Your task to perform on an android device: Search for the new Nike Air Jordan 33 on Nike.com Image 0: 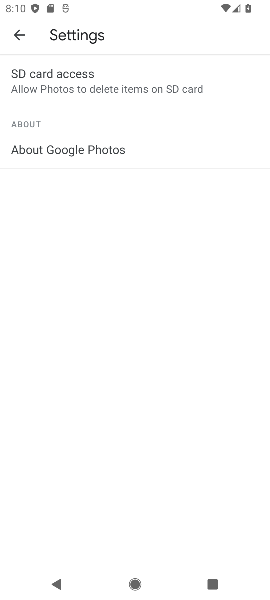
Step 0: press home button
Your task to perform on an android device: Search for the new Nike Air Jordan 33 on Nike.com Image 1: 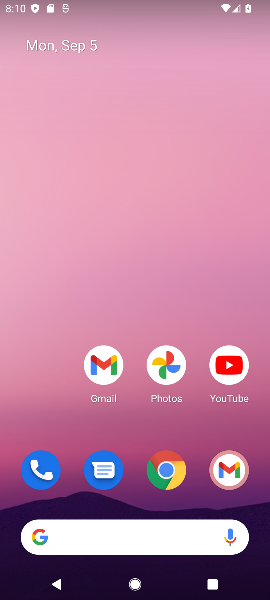
Step 1: click (155, 526)
Your task to perform on an android device: Search for the new Nike Air Jordan 33 on Nike.com Image 2: 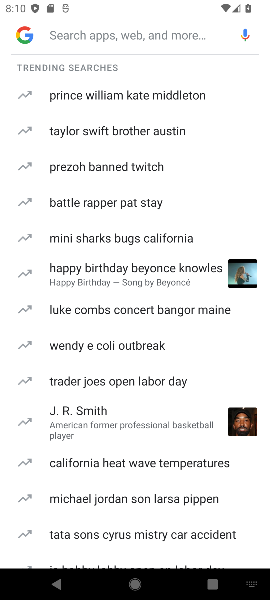
Step 2: type "nike.com"
Your task to perform on an android device: Search for the new Nike Air Jordan 33 on Nike.com Image 3: 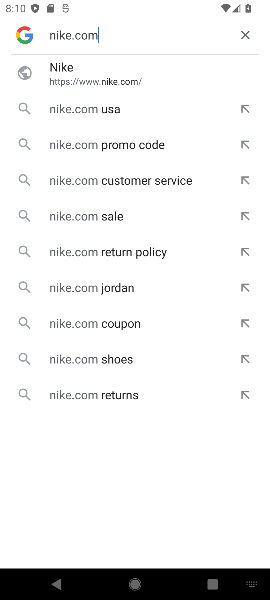
Step 3: click (58, 62)
Your task to perform on an android device: Search for the new Nike Air Jordan 33 on Nike.com Image 4: 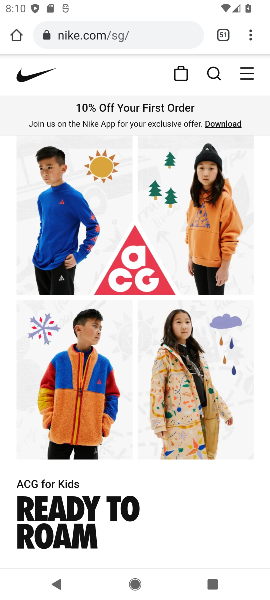
Step 4: click (210, 70)
Your task to perform on an android device: Search for the new Nike Air Jordan 33 on Nike.com Image 5: 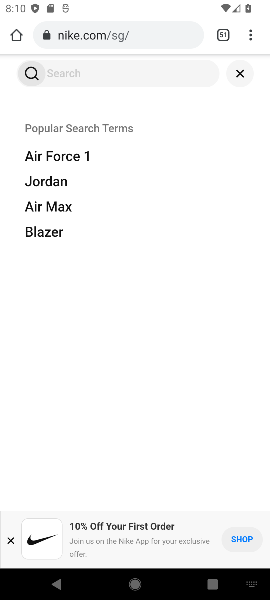
Step 5: type "new Nike Air Jordan 33"
Your task to perform on an android device: Search for the new Nike Air Jordan 33 on Nike.com Image 6: 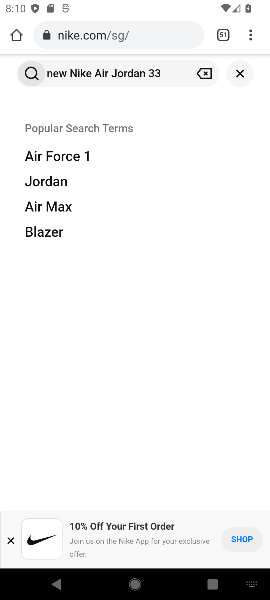
Step 6: click (27, 69)
Your task to perform on an android device: Search for the new Nike Air Jordan 33 on Nike.com Image 7: 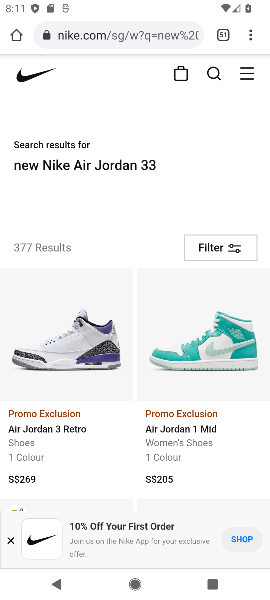
Step 7: task complete